Your task to perform on an android device: add a contact in the contacts app Image 0: 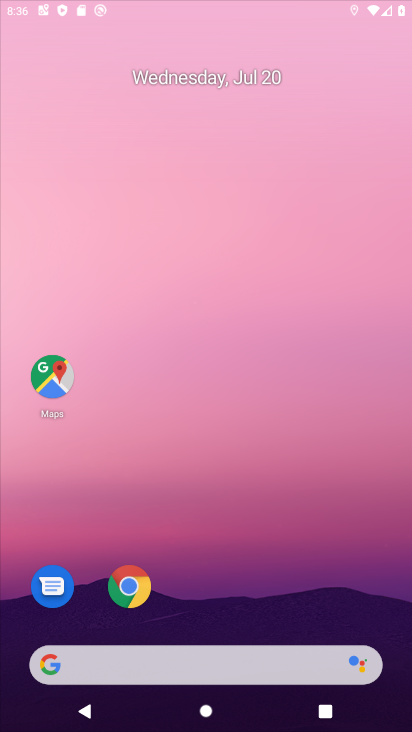
Step 0: click (187, 663)
Your task to perform on an android device: add a contact in the contacts app Image 1: 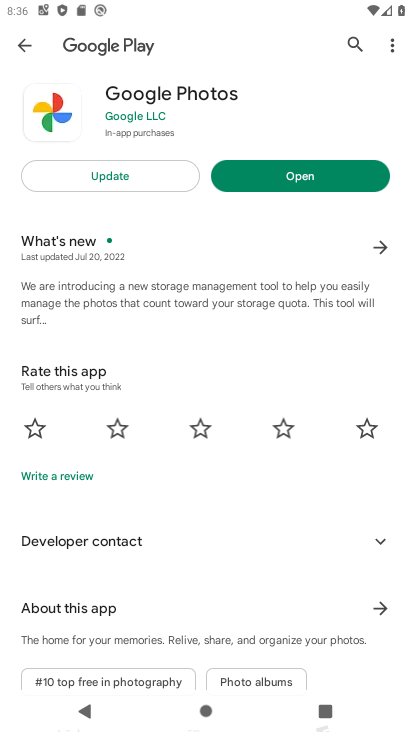
Step 1: press home button
Your task to perform on an android device: add a contact in the contacts app Image 2: 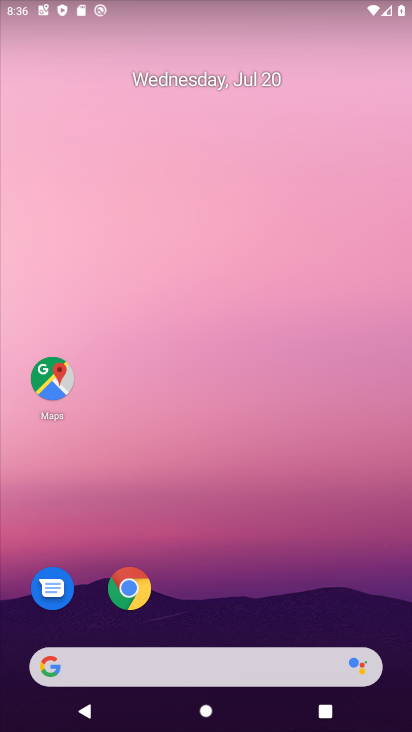
Step 2: drag from (196, 634) to (261, 260)
Your task to perform on an android device: add a contact in the contacts app Image 3: 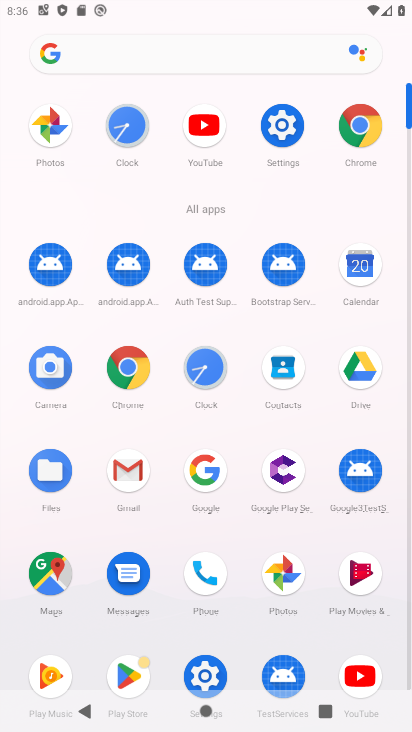
Step 3: click (275, 373)
Your task to perform on an android device: add a contact in the contacts app Image 4: 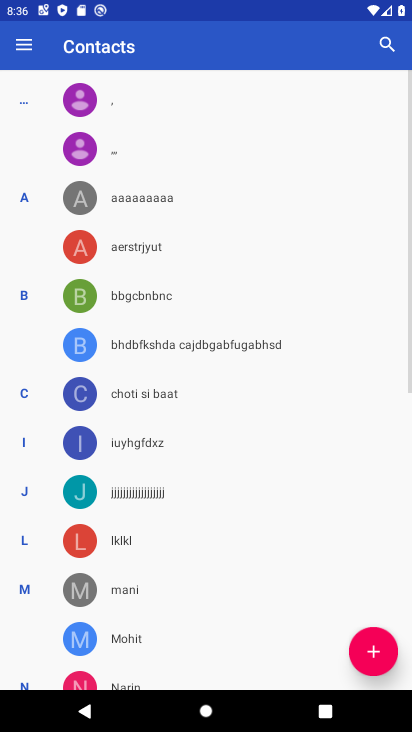
Step 4: click (370, 639)
Your task to perform on an android device: add a contact in the contacts app Image 5: 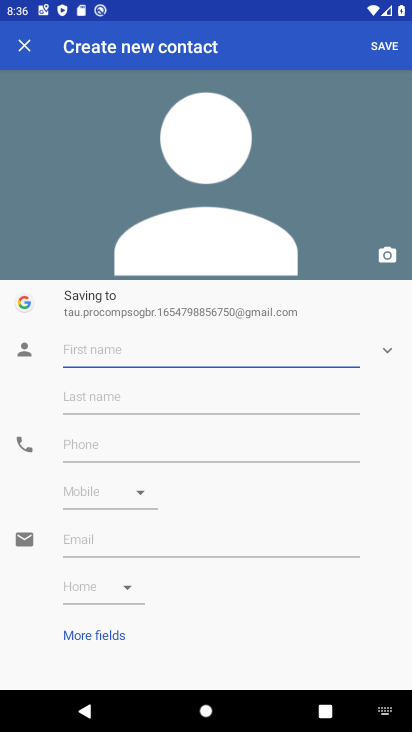
Step 5: type ",,"
Your task to perform on an android device: add a contact in the contacts app Image 6: 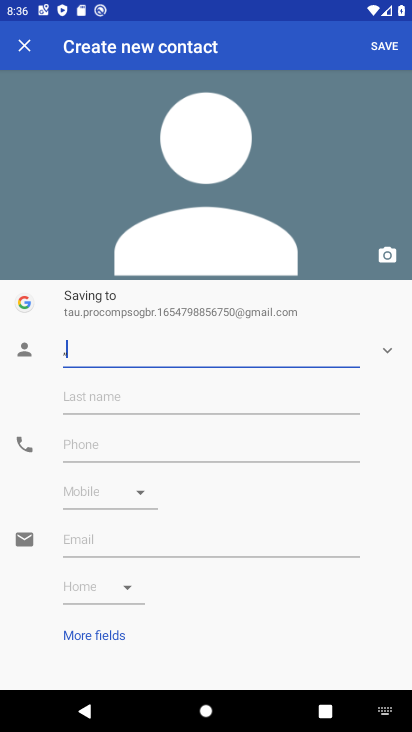
Step 6: type ""
Your task to perform on an android device: add a contact in the contacts app Image 7: 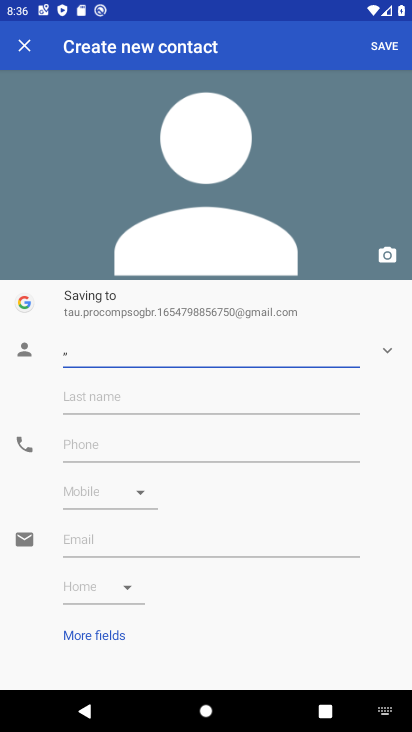
Step 7: click (244, 447)
Your task to perform on an android device: add a contact in the contacts app Image 8: 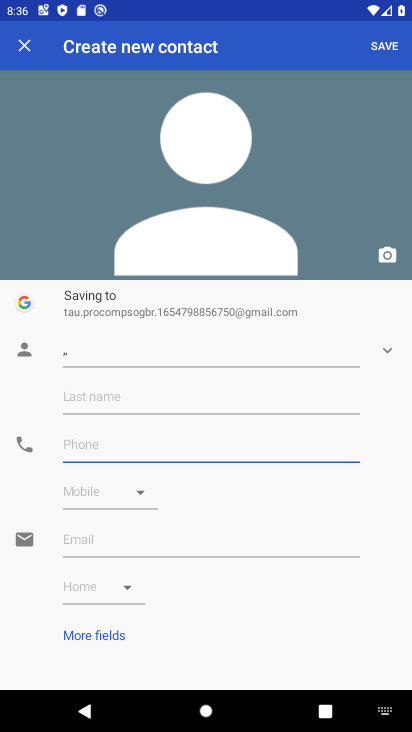
Step 8: type "1234567890"
Your task to perform on an android device: add a contact in the contacts app Image 9: 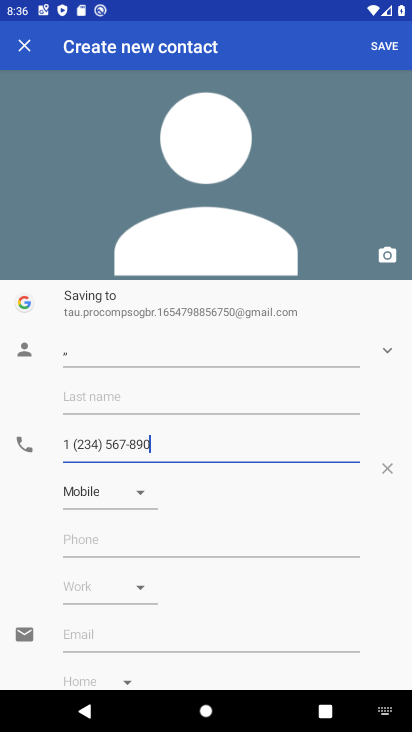
Step 9: type ""
Your task to perform on an android device: add a contact in the contacts app Image 10: 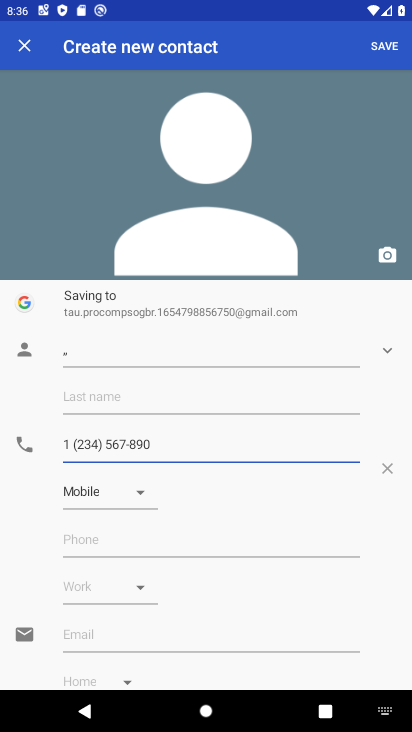
Step 10: click (385, 46)
Your task to perform on an android device: add a contact in the contacts app Image 11: 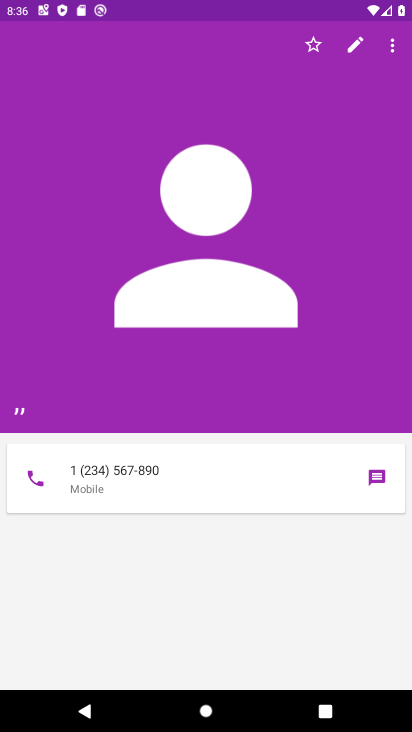
Step 11: task complete